Your task to perform on an android device: Go to Yahoo.com Image 0: 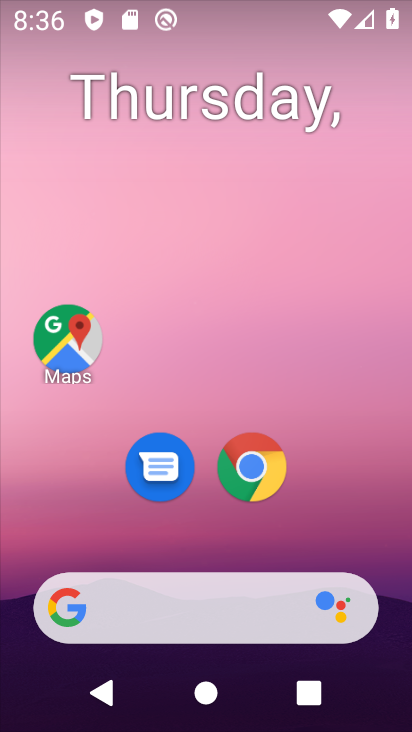
Step 0: click (250, 479)
Your task to perform on an android device: Go to Yahoo.com Image 1: 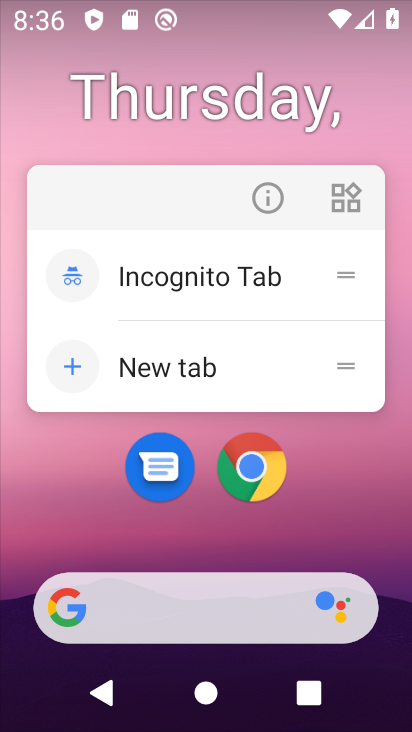
Step 1: click (250, 479)
Your task to perform on an android device: Go to Yahoo.com Image 2: 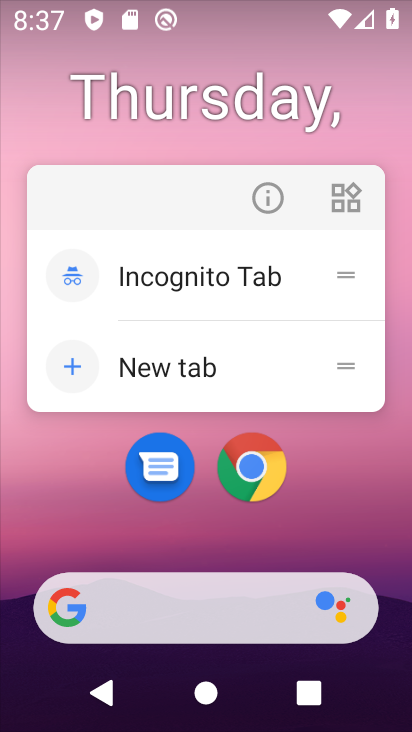
Step 2: click (252, 478)
Your task to perform on an android device: Go to Yahoo.com Image 3: 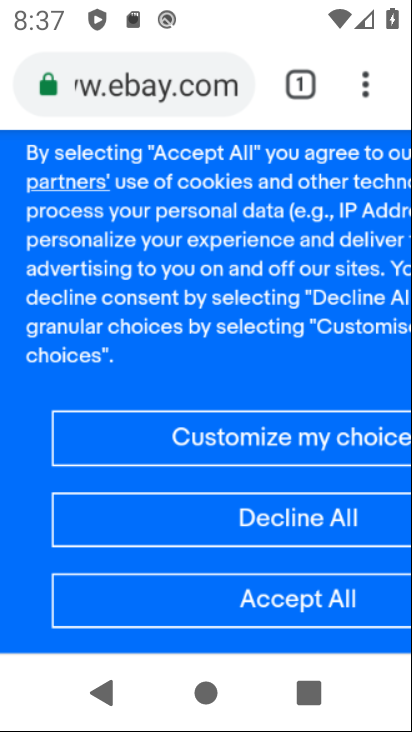
Step 3: click (146, 93)
Your task to perform on an android device: Go to Yahoo.com Image 4: 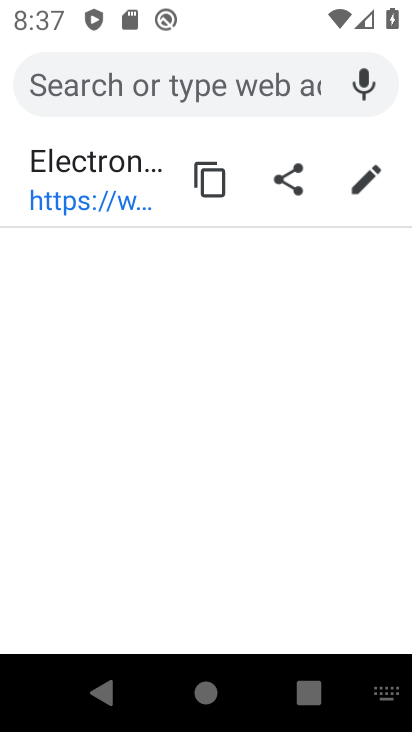
Step 4: type "yahoo.com"
Your task to perform on an android device: Go to Yahoo.com Image 5: 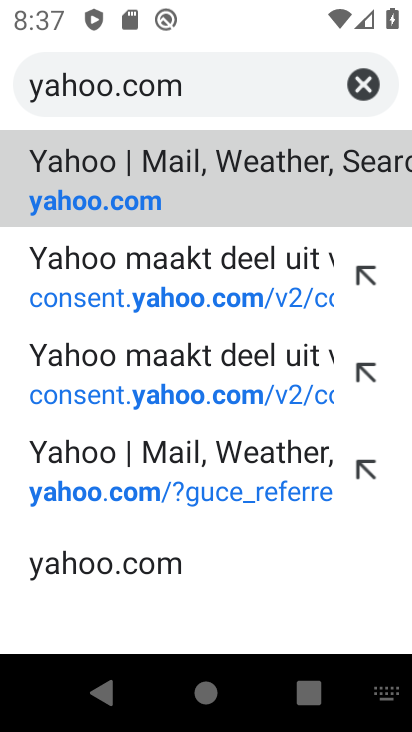
Step 5: click (121, 158)
Your task to perform on an android device: Go to Yahoo.com Image 6: 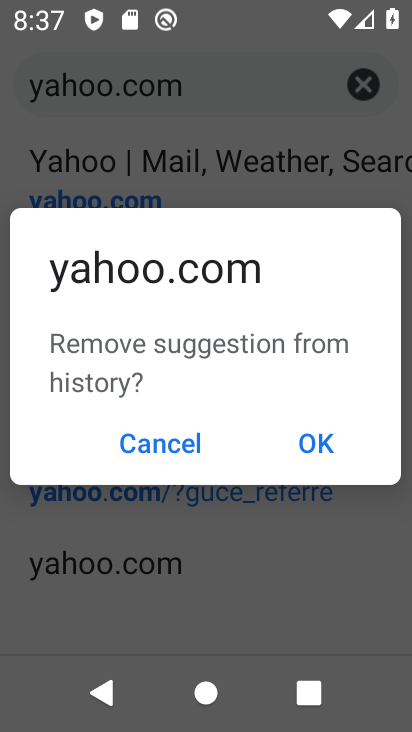
Step 6: click (180, 441)
Your task to perform on an android device: Go to Yahoo.com Image 7: 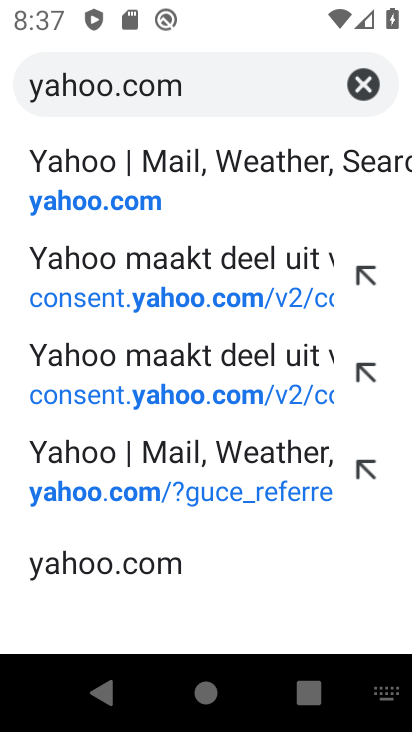
Step 7: click (101, 188)
Your task to perform on an android device: Go to Yahoo.com Image 8: 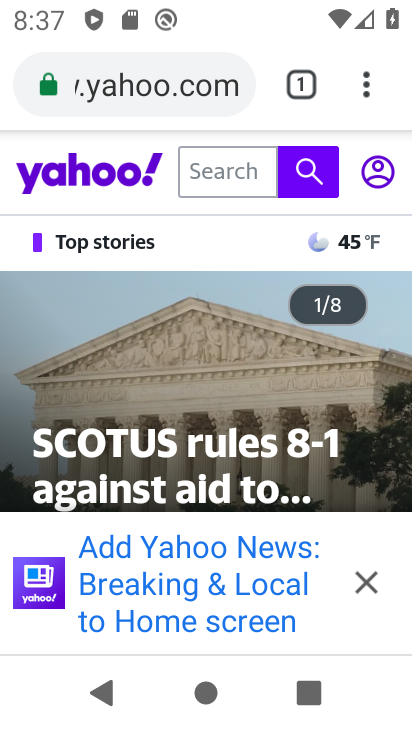
Step 8: task complete